Your task to perform on an android device: delete browsing data in the chrome app Image 0: 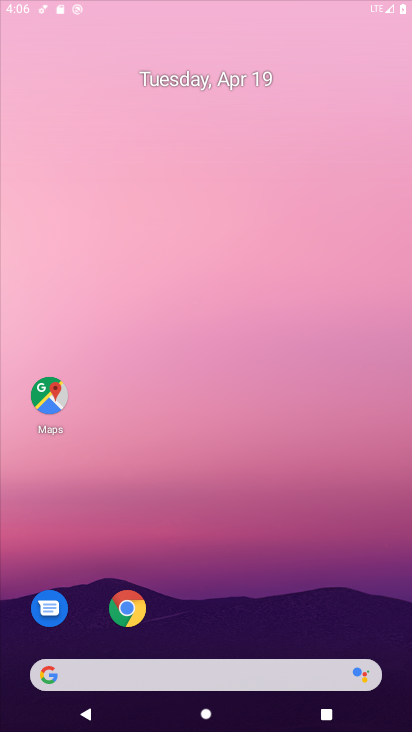
Step 0: drag from (323, 283) to (318, 88)
Your task to perform on an android device: delete browsing data in the chrome app Image 1: 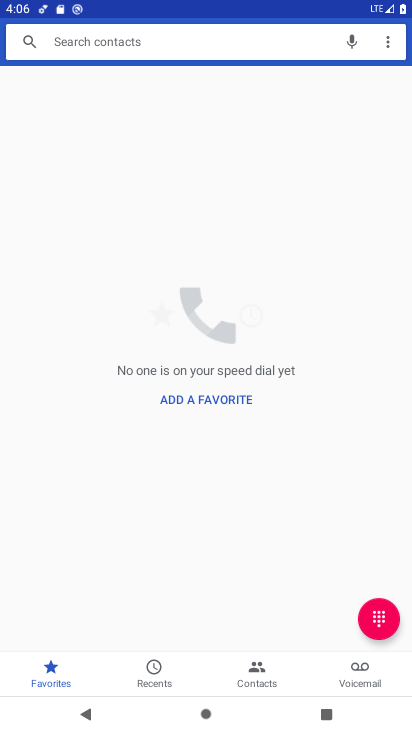
Step 1: press home button
Your task to perform on an android device: delete browsing data in the chrome app Image 2: 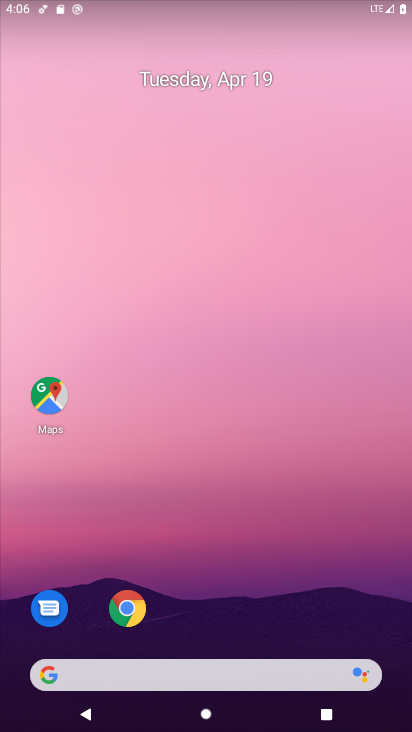
Step 2: drag from (277, 584) to (222, 161)
Your task to perform on an android device: delete browsing data in the chrome app Image 3: 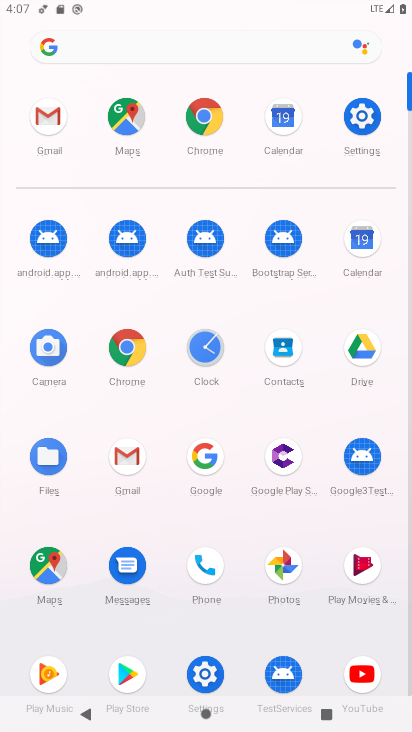
Step 3: click (135, 344)
Your task to perform on an android device: delete browsing data in the chrome app Image 4: 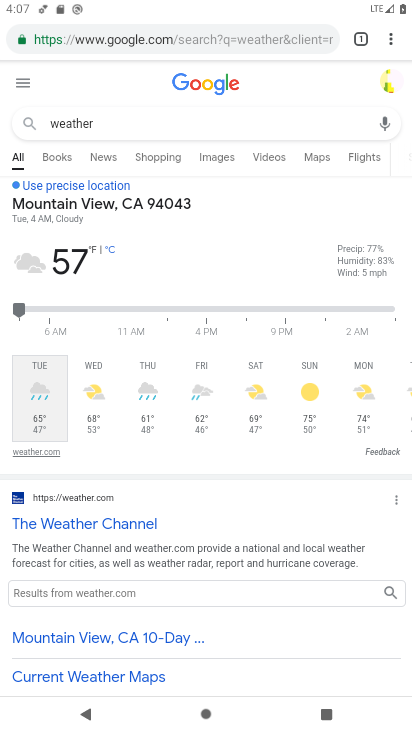
Step 4: click (394, 38)
Your task to perform on an android device: delete browsing data in the chrome app Image 5: 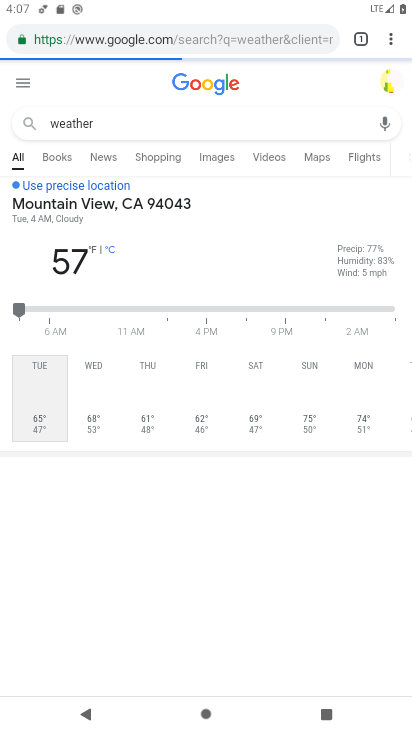
Step 5: drag from (393, 37) to (253, 269)
Your task to perform on an android device: delete browsing data in the chrome app Image 6: 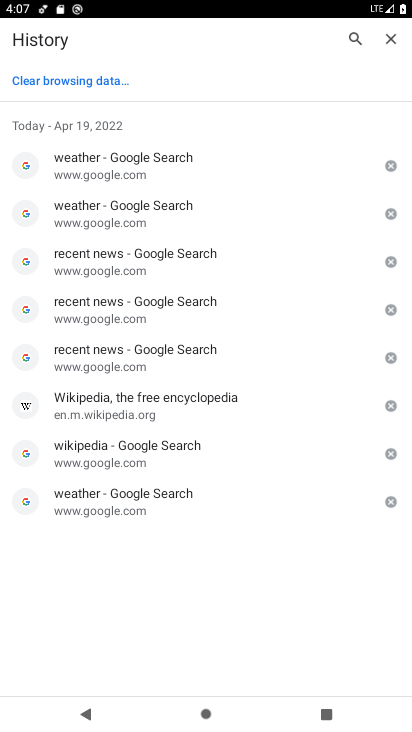
Step 6: click (75, 86)
Your task to perform on an android device: delete browsing data in the chrome app Image 7: 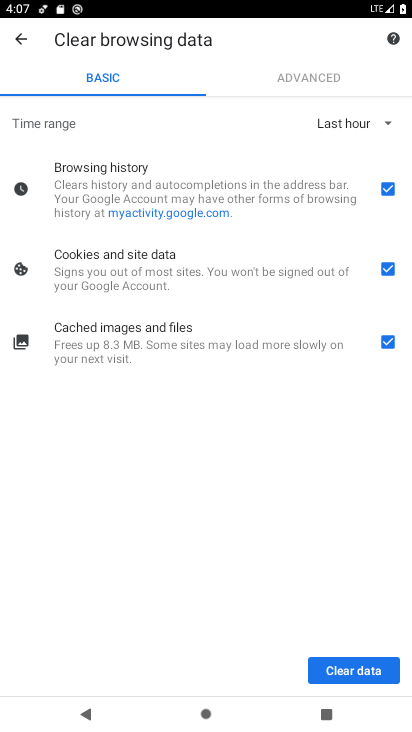
Step 7: click (378, 676)
Your task to perform on an android device: delete browsing data in the chrome app Image 8: 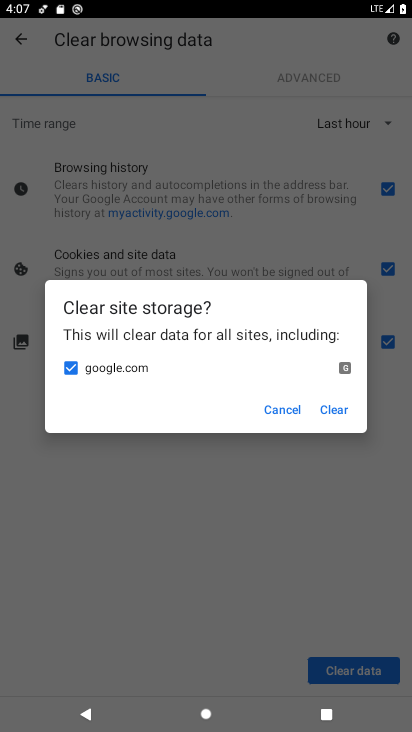
Step 8: click (343, 414)
Your task to perform on an android device: delete browsing data in the chrome app Image 9: 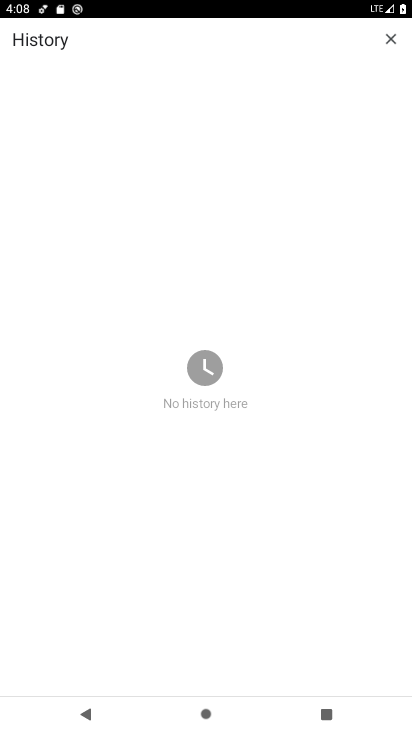
Step 9: task complete